Your task to perform on an android device: turn on sleep mode Image 0: 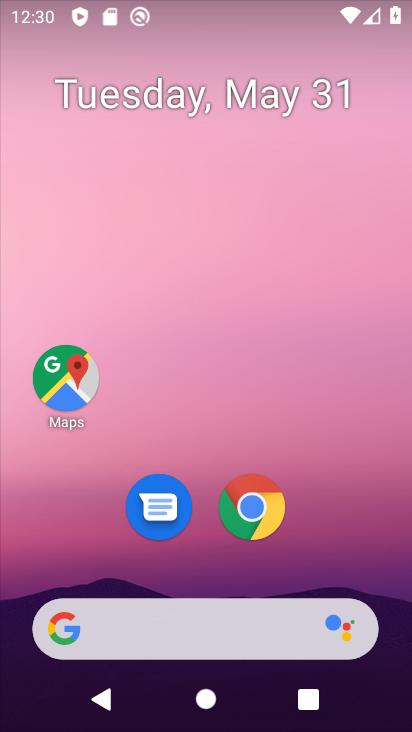
Step 0: press home button
Your task to perform on an android device: turn on sleep mode Image 1: 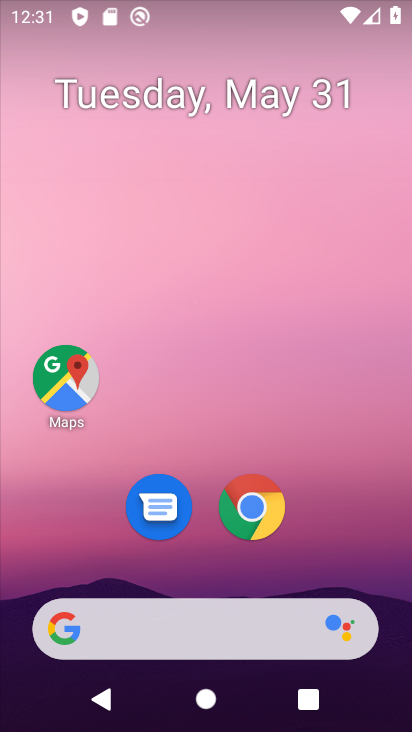
Step 1: drag from (378, 521) to (300, 103)
Your task to perform on an android device: turn on sleep mode Image 2: 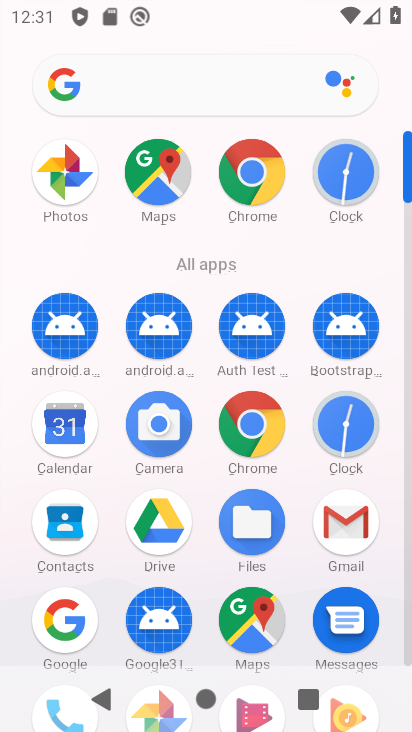
Step 2: click (409, 652)
Your task to perform on an android device: turn on sleep mode Image 3: 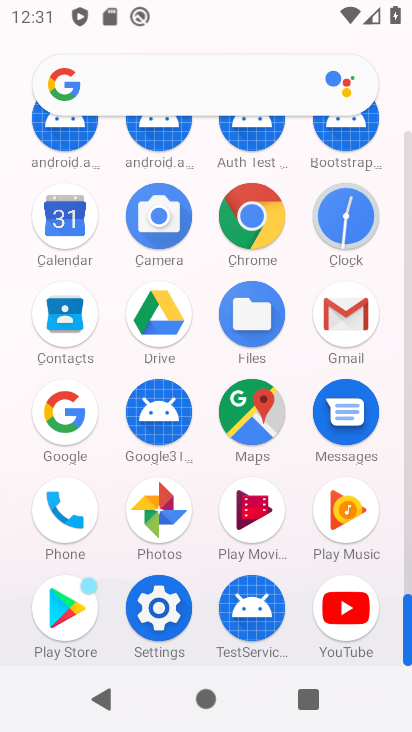
Step 3: click (123, 620)
Your task to perform on an android device: turn on sleep mode Image 4: 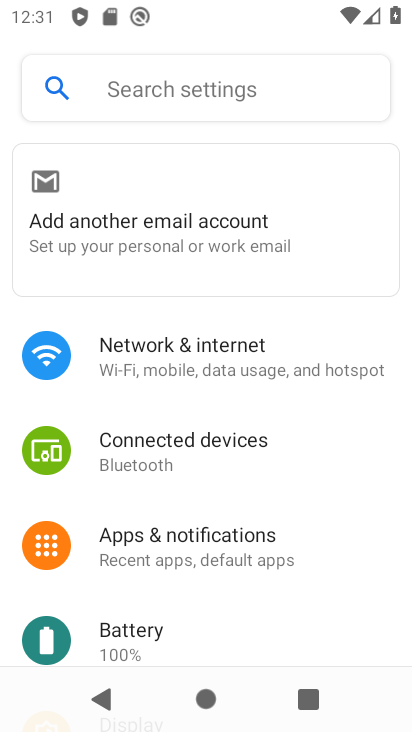
Step 4: drag from (254, 540) to (258, 99)
Your task to perform on an android device: turn on sleep mode Image 5: 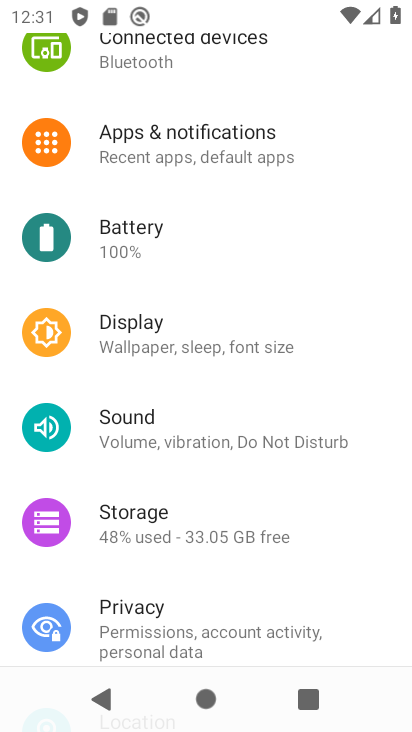
Step 5: click (158, 344)
Your task to perform on an android device: turn on sleep mode Image 6: 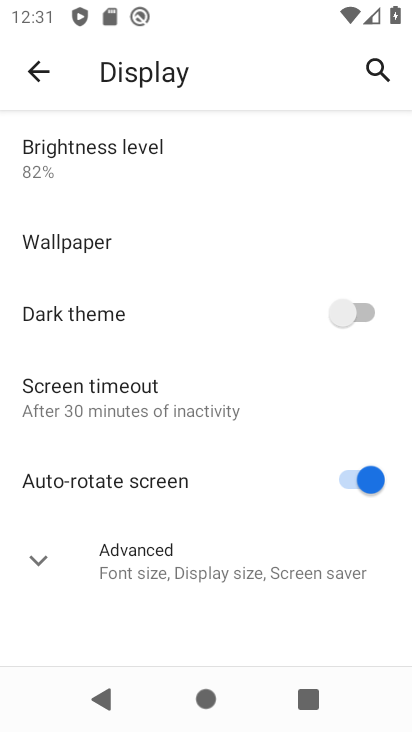
Step 6: task complete